Your task to perform on an android device: change notifications settings Image 0: 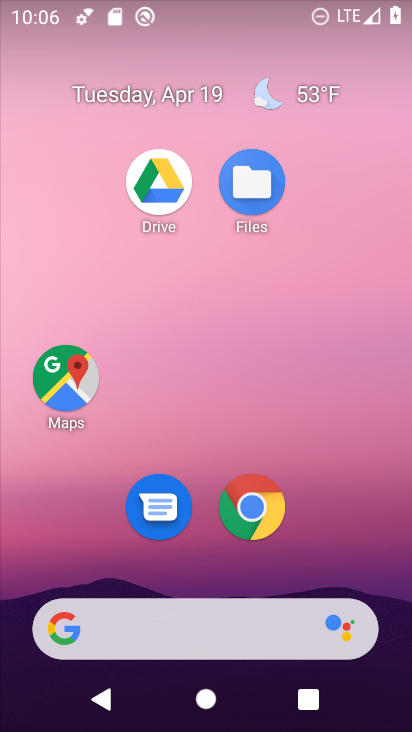
Step 0: drag from (358, 490) to (360, 133)
Your task to perform on an android device: change notifications settings Image 1: 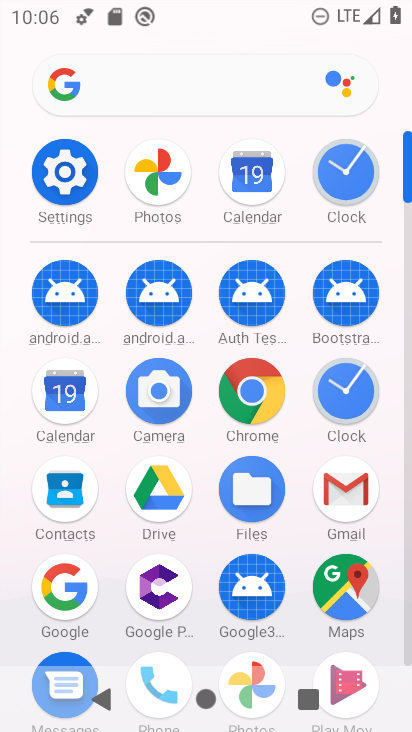
Step 1: click (78, 182)
Your task to perform on an android device: change notifications settings Image 2: 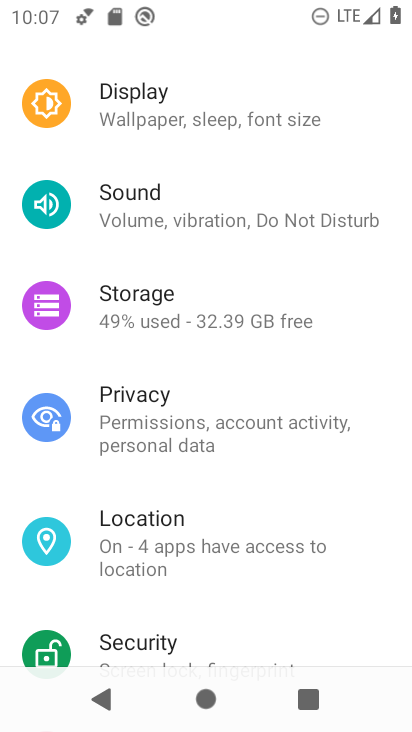
Step 2: drag from (202, 151) to (198, 588)
Your task to perform on an android device: change notifications settings Image 3: 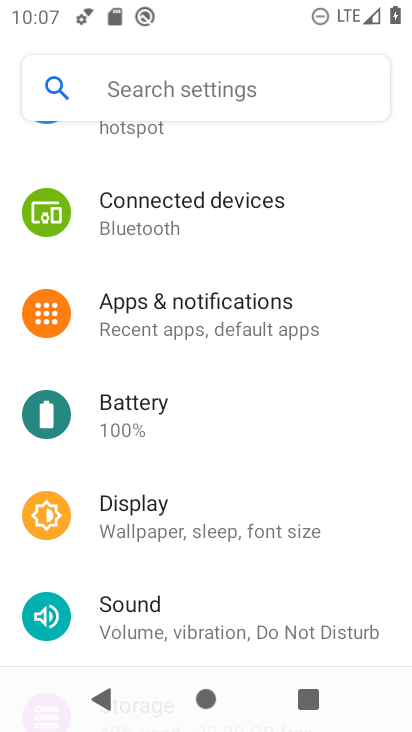
Step 3: click (234, 316)
Your task to perform on an android device: change notifications settings Image 4: 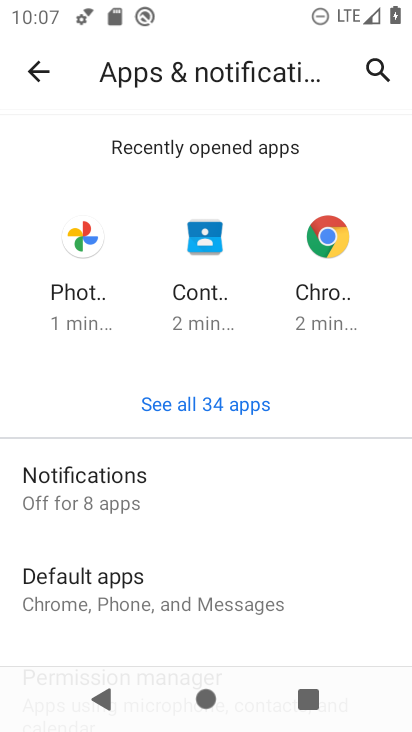
Step 4: click (149, 490)
Your task to perform on an android device: change notifications settings Image 5: 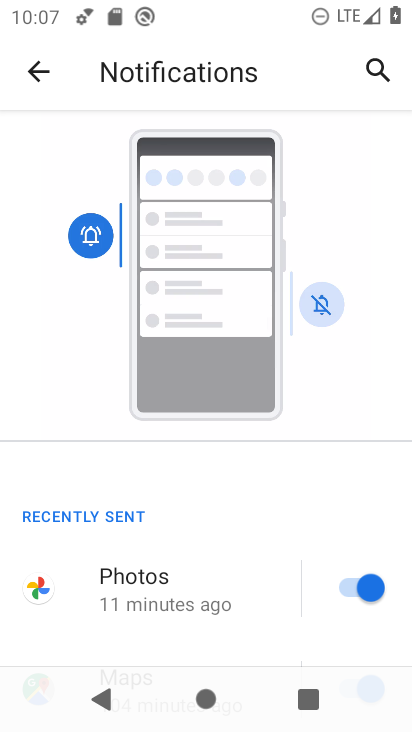
Step 5: drag from (258, 551) to (273, 283)
Your task to perform on an android device: change notifications settings Image 6: 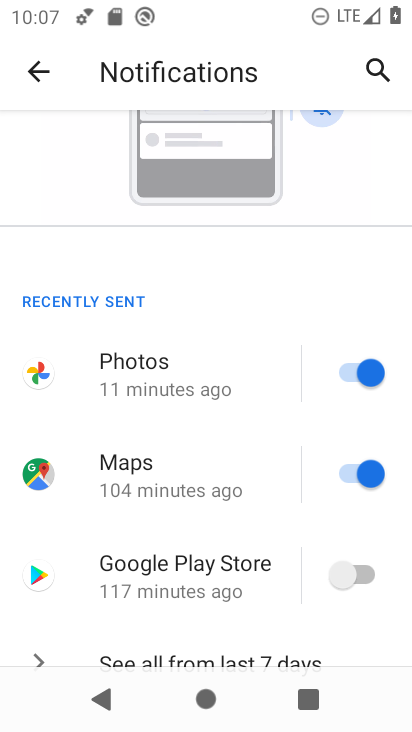
Step 6: drag from (248, 579) to (236, 245)
Your task to perform on an android device: change notifications settings Image 7: 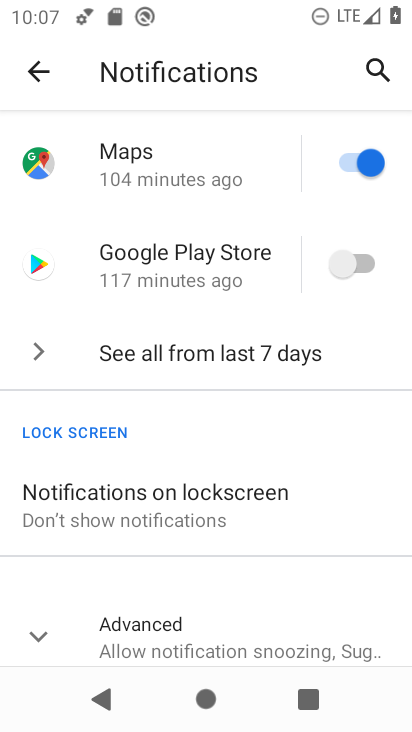
Step 7: click (253, 344)
Your task to perform on an android device: change notifications settings Image 8: 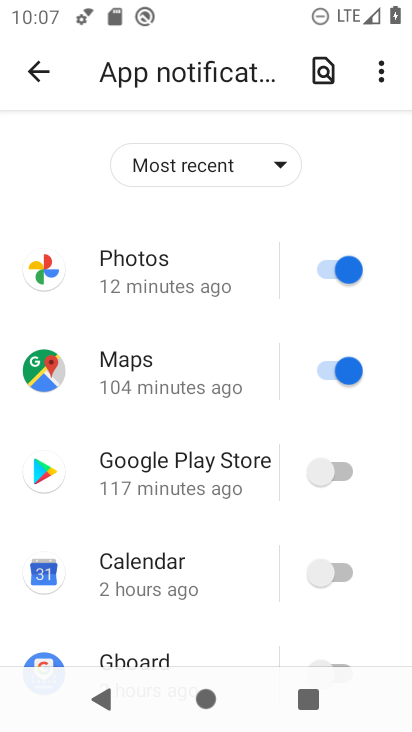
Step 8: click (333, 266)
Your task to perform on an android device: change notifications settings Image 9: 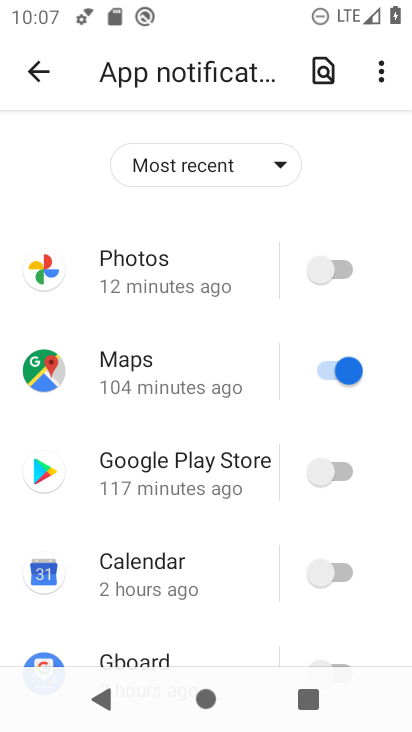
Step 9: click (333, 364)
Your task to perform on an android device: change notifications settings Image 10: 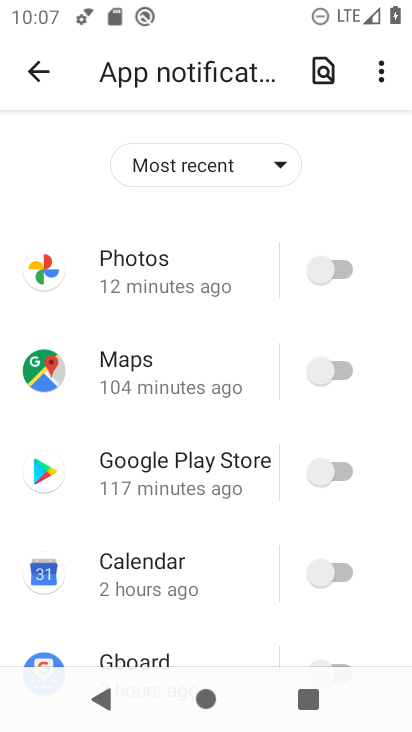
Step 10: click (331, 459)
Your task to perform on an android device: change notifications settings Image 11: 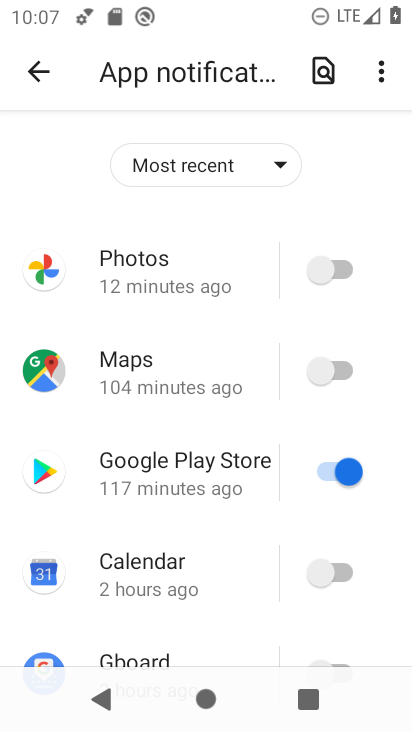
Step 11: click (328, 571)
Your task to perform on an android device: change notifications settings Image 12: 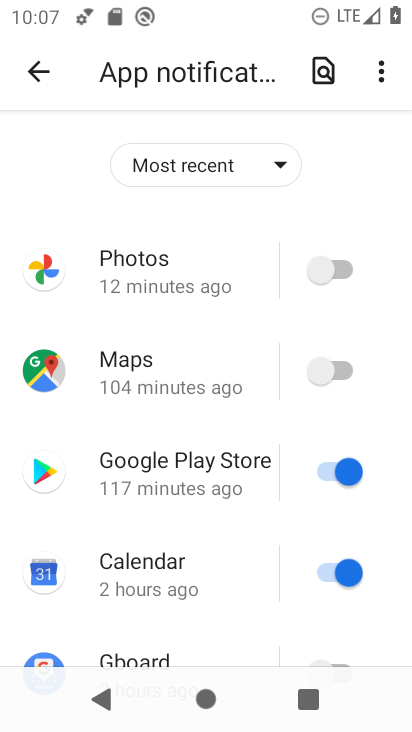
Step 12: drag from (241, 597) to (200, 92)
Your task to perform on an android device: change notifications settings Image 13: 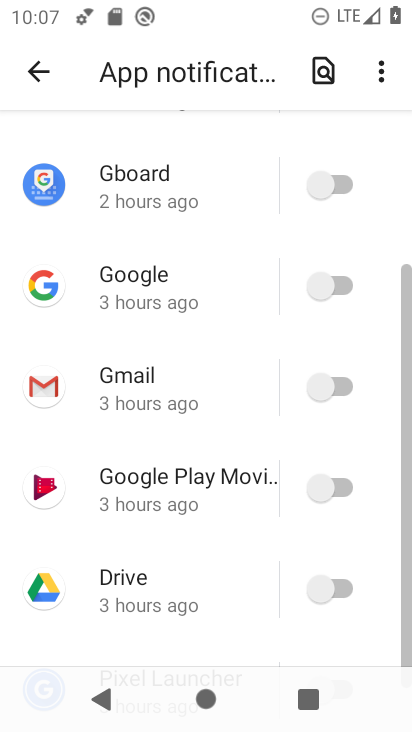
Step 13: click (339, 175)
Your task to perform on an android device: change notifications settings Image 14: 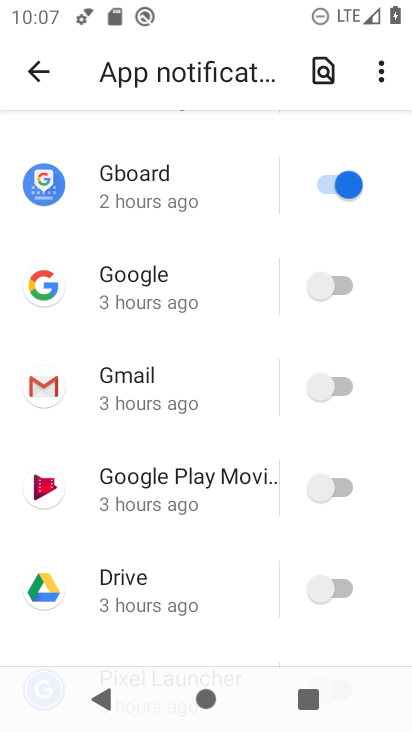
Step 14: click (341, 281)
Your task to perform on an android device: change notifications settings Image 15: 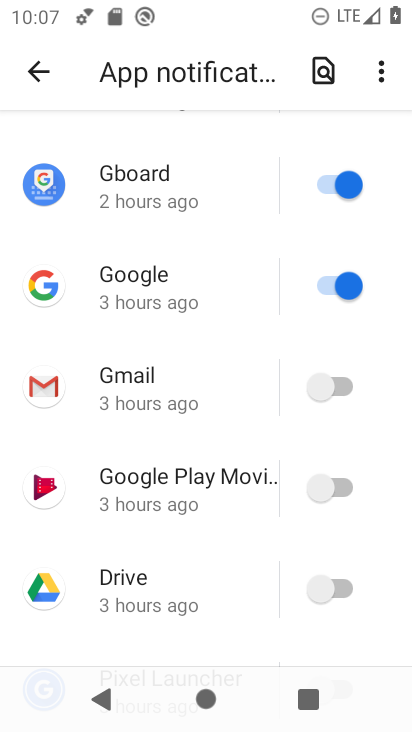
Step 15: click (342, 382)
Your task to perform on an android device: change notifications settings Image 16: 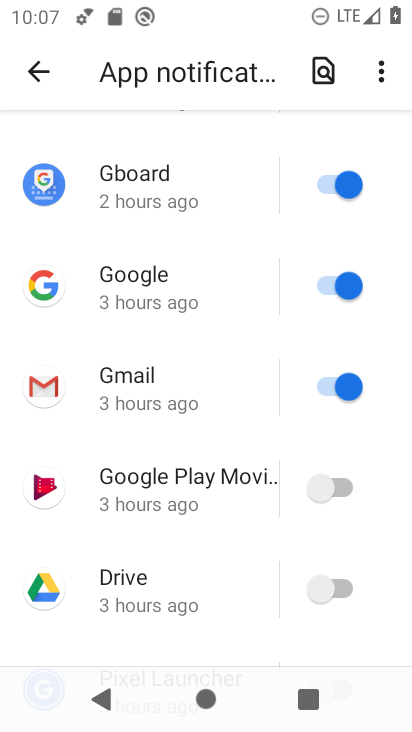
Step 16: click (339, 483)
Your task to perform on an android device: change notifications settings Image 17: 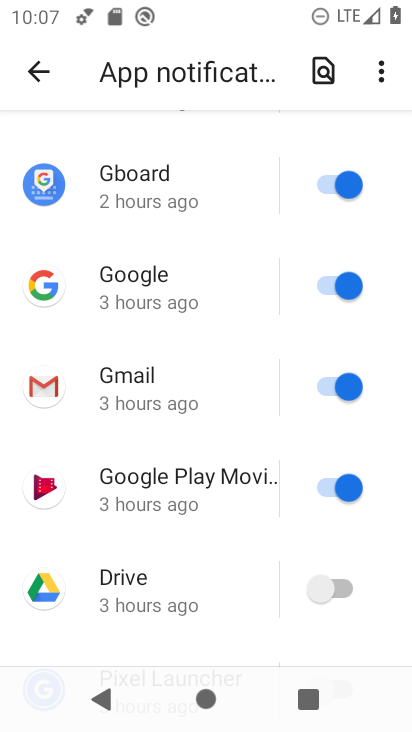
Step 17: click (334, 580)
Your task to perform on an android device: change notifications settings Image 18: 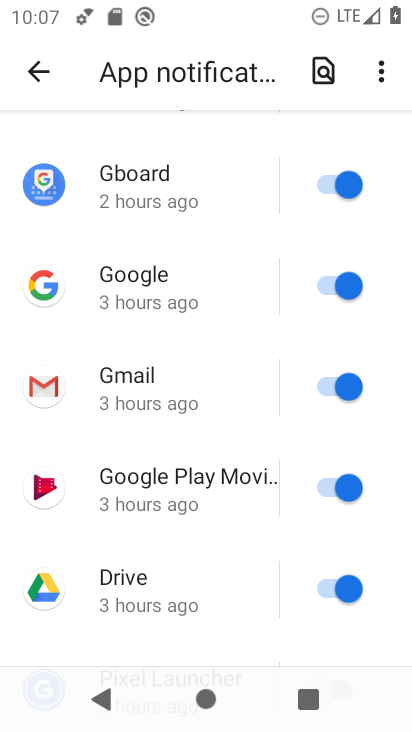
Step 18: drag from (224, 552) to (224, 245)
Your task to perform on an android device: change notifications settings Image 19: 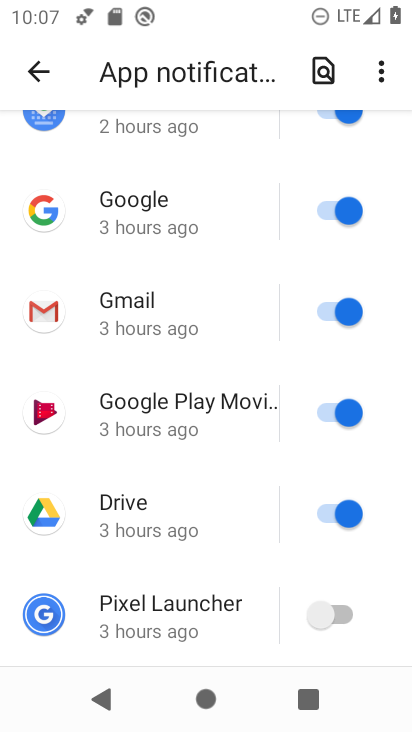
Step 19: click (337, 615)
Your task to perform on an android device: change notifications settings Image 20: 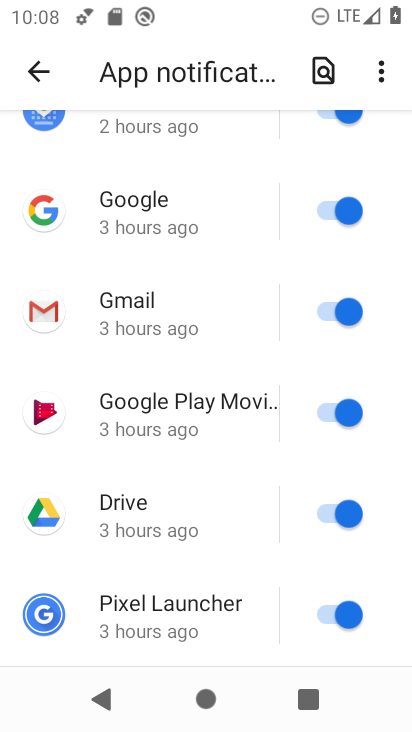
Step 20: task complete